Your task to perform on an android device: move a message to another label in the gmail app Image 0: 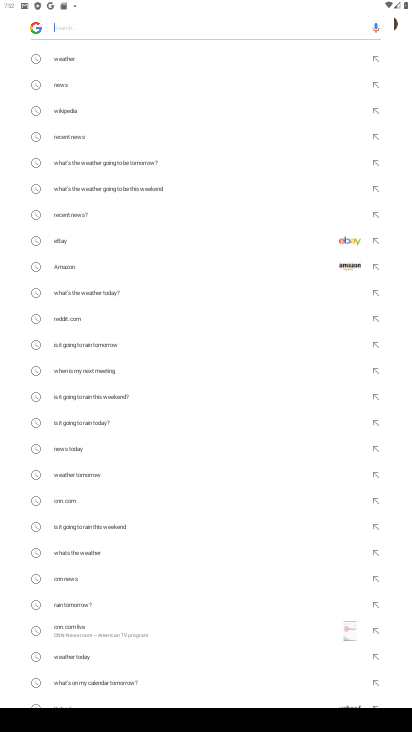
Step 0: press home button
Your task to perform on an android device: move a message to another label in the gmail app Image 1: 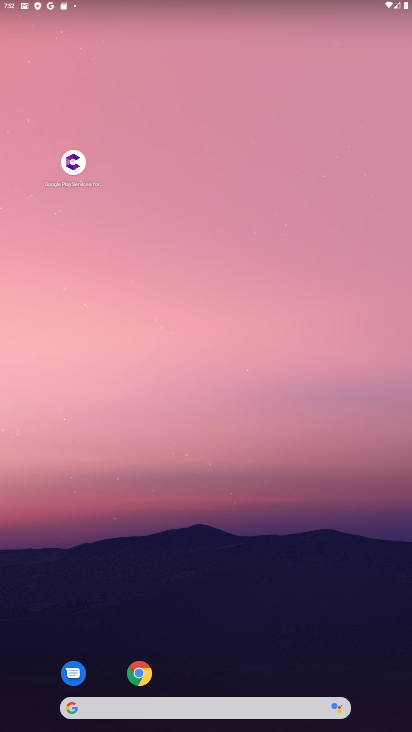
Step 1: drag from (228, 649) to (238, 106)
Your task to perform on an android device: move a message to another label in the gmail app Image 2: 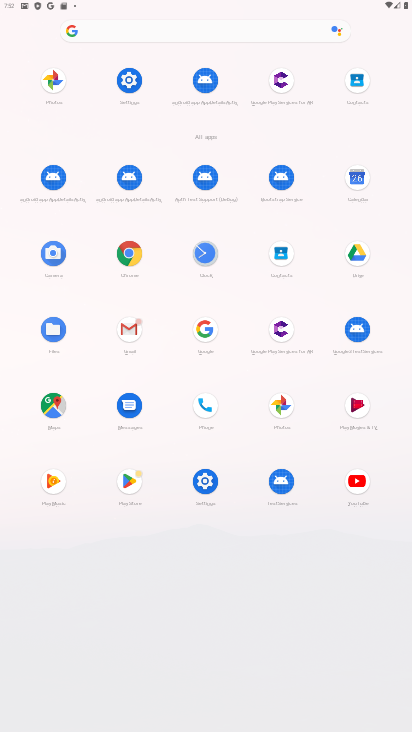
Step 2: click (140, 339)
Your task to perform on an android device: move a message to another label in the gmail app Image 3: 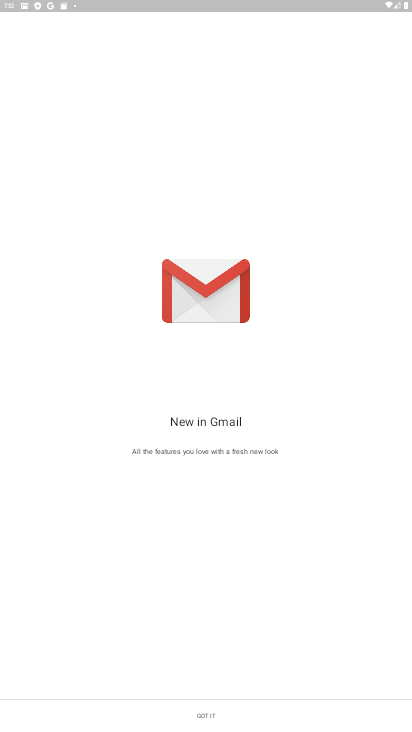
Step 3: click (247, 714)
Your task to perform on an android device: move a message to another label in the gmail app Image 4: 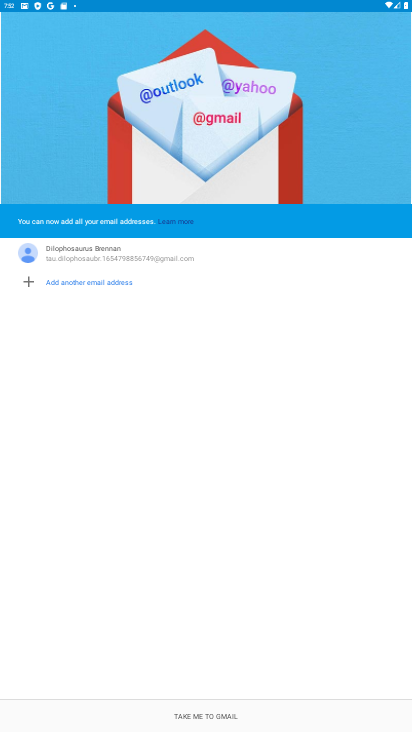
Step 4: click (247, 714)
Your task to perform on an android device: move a message to another label in the gmail app Image 5: 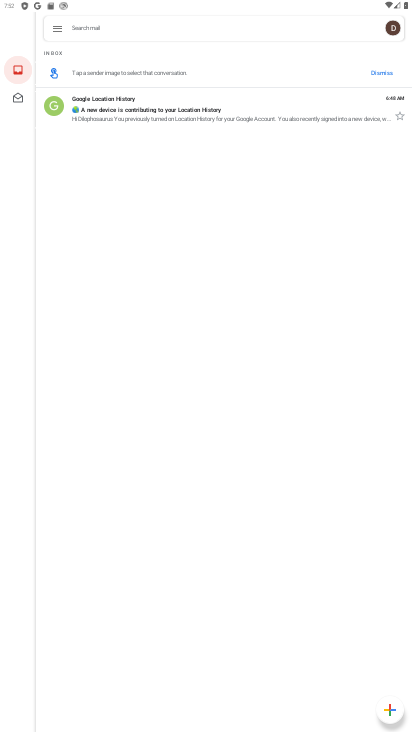
Step 5: click (184, 118)
Your task to perform on an android device: move a message to another label in the gmail app Image 6: 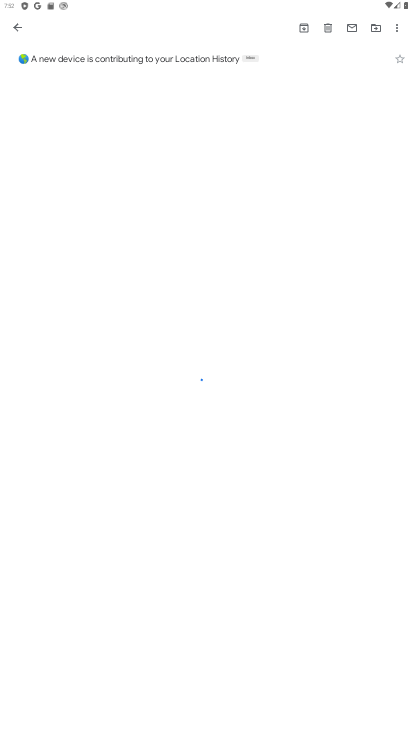
Step 6: click (397, 32)
Your task to perform on an android device: move a message to another label in the gmail app Image 7: 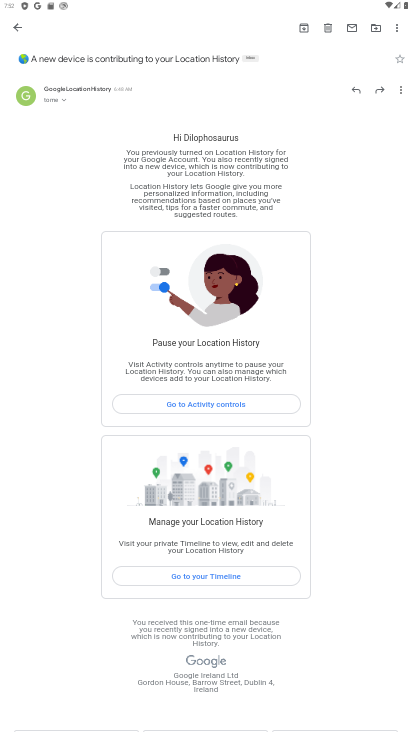
Step 7: click (399, 32)
Your task to perform on an android device: move a message to another label in the gmail app Image 8: 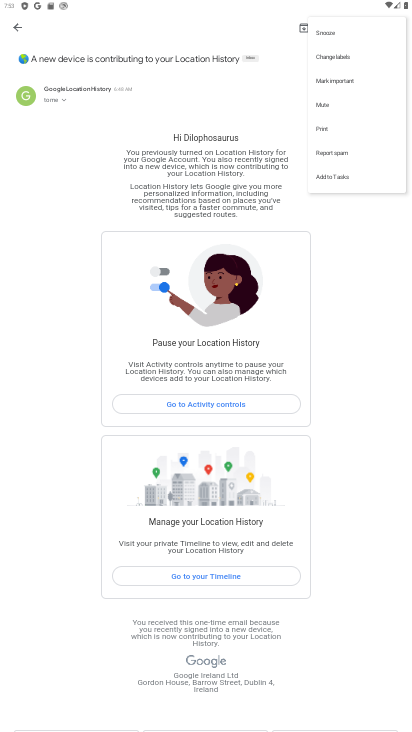
Step 8: click (340, 56)
Your task to perform on an android device: move a message to another label in the gmail app Image 9: 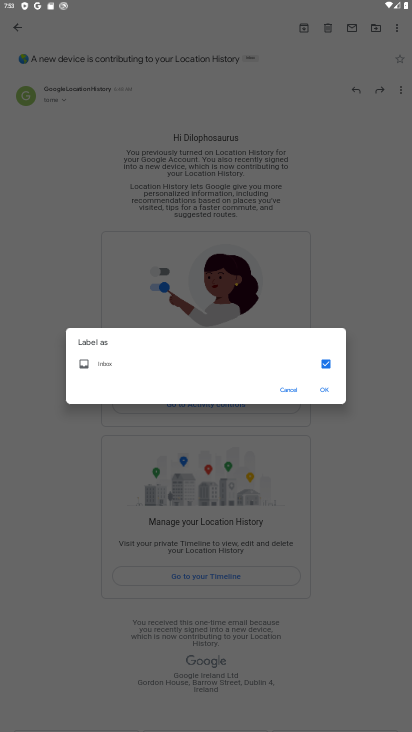
Step 9: click (324, 381)
Your task to perform on an android device: move a message to another label in the gmail app Image 10: 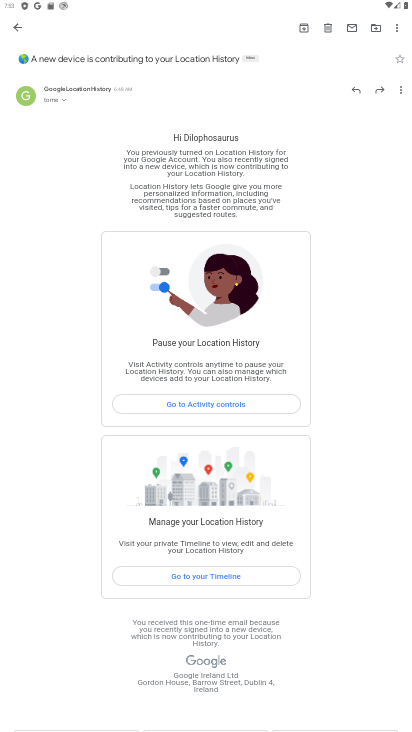
Step 10: task complete